Your task to perform on an android device: change alarm snooze length Image 0: 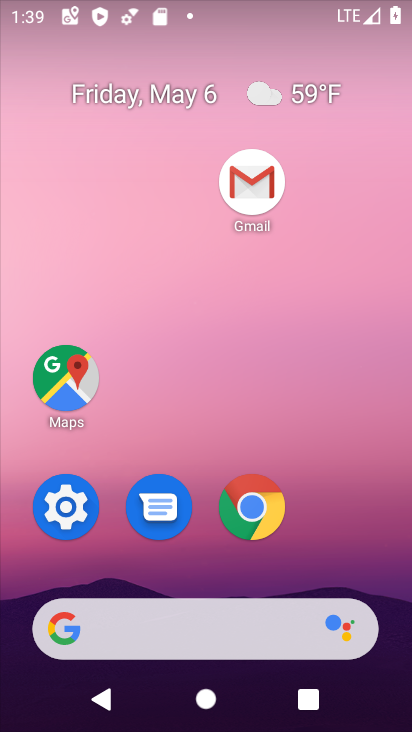
Step 0: drag from (353, 484) to (292, 76)
Your task to perform on an android device: change alarm snooze length Image 1: 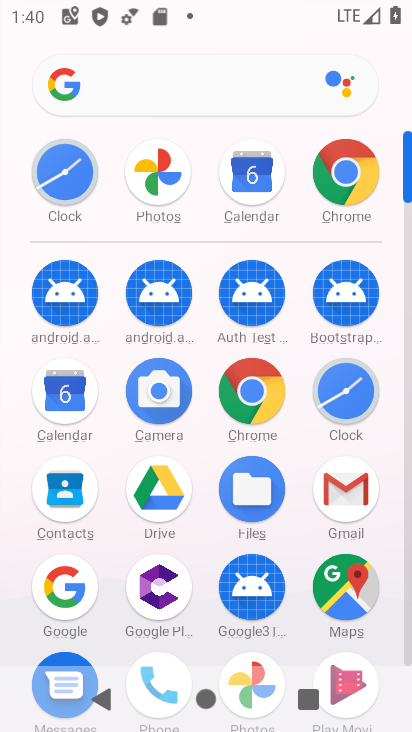
Step 1: click (337, 385)
Your task to perform on an android device: change alarm snooze length Image 2: 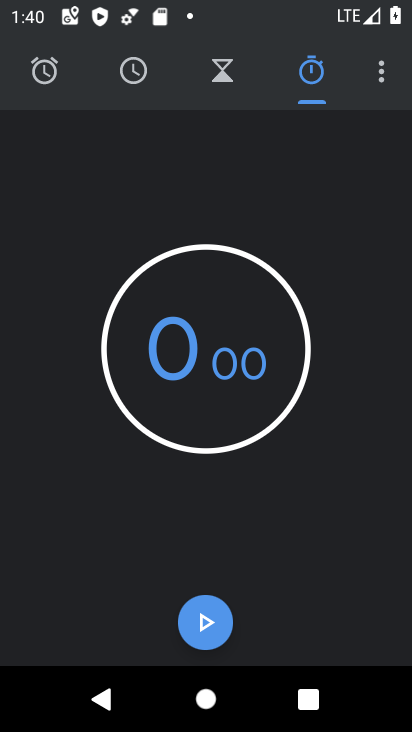
Step 2: click (380, 69)
Your task to perform on an android device: change alarm snooze length Image 3: 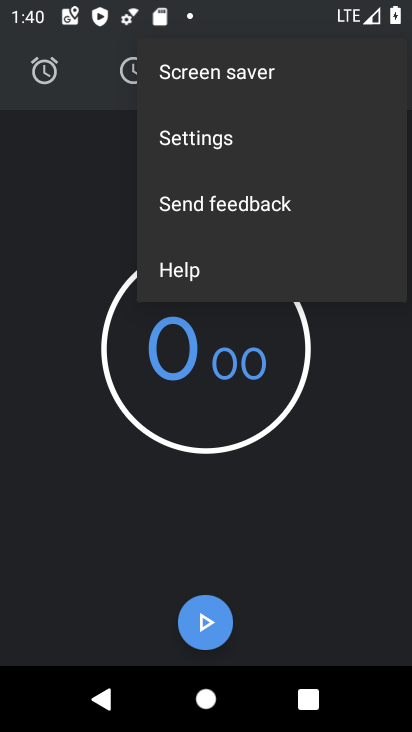
Step 3: click (217, 134)
Your task to perform on an android device: change alarm snooze length Image 4: 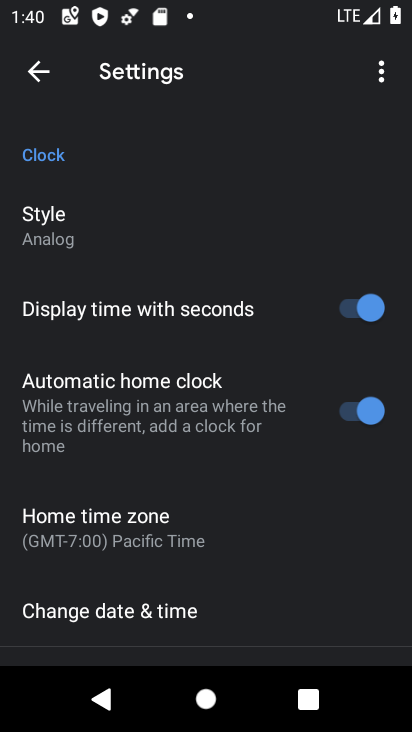
Step 4: drag from (214, 563) to (181, 298)
Your task to perform on an android device: change alarm snooze length Image 5: 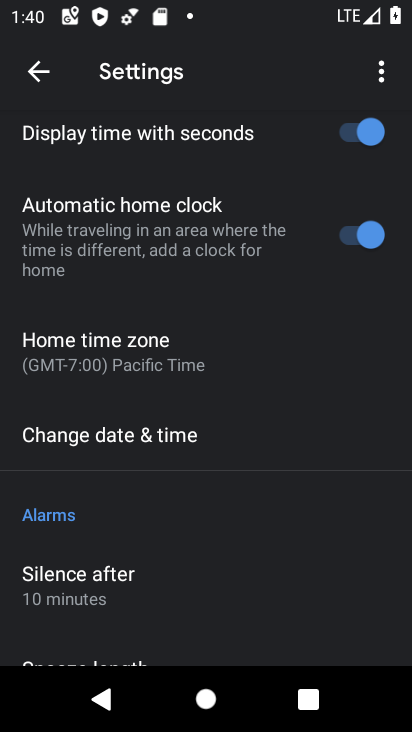
Step 5: drag from (209, 542) to (148, 255)
Your task to perform on an android device: change alarm snooze length Image 6: 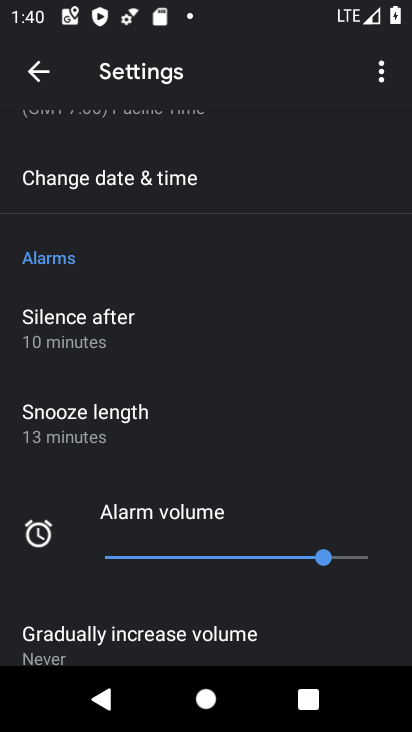
Step 6: click (89, 406)
Your task to perform on an android device: change alarm snooze length Image 7: 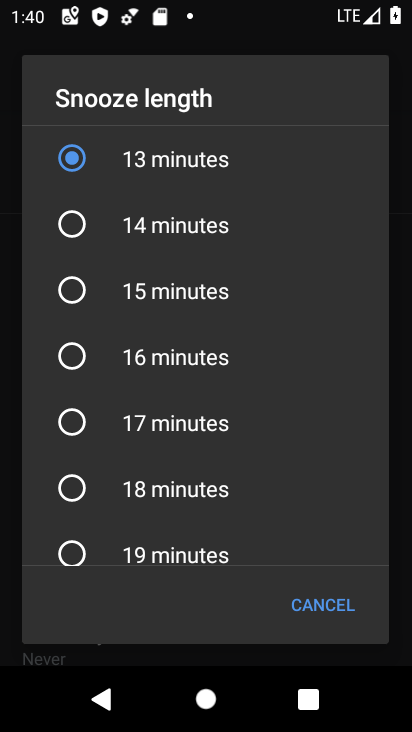
Step 7: click (71, 288)
Your task to perform on an android device: change alarm snooze length Image 8: 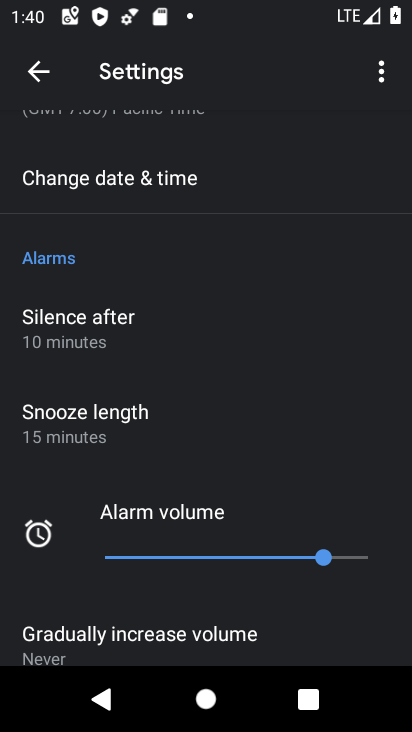
Step 8: task complete